Your task to perform on an android device: delete browsing data in the chrome app Image 0: 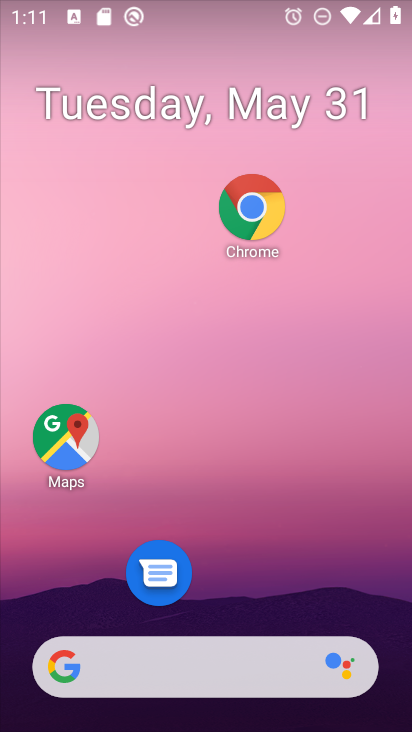
Step 0: drag from (225, 592) to (270, 199)
Your task to perform on an android device: delete browsing data in the chrome app Image 1: 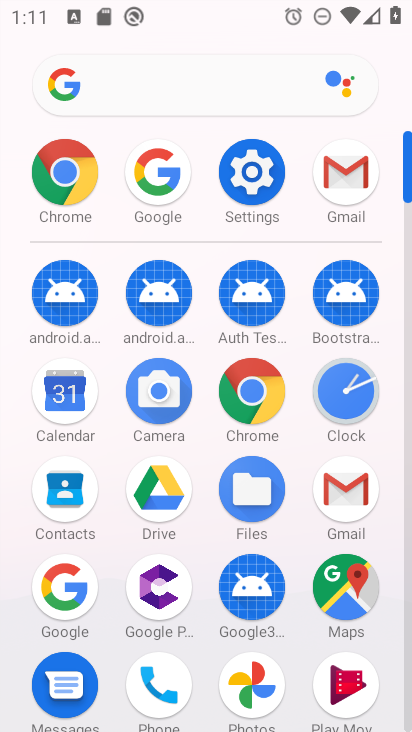
Step 1: click (74, 187)
Your task to perform on an android device: delete browsing data in the chrome app Image 2: 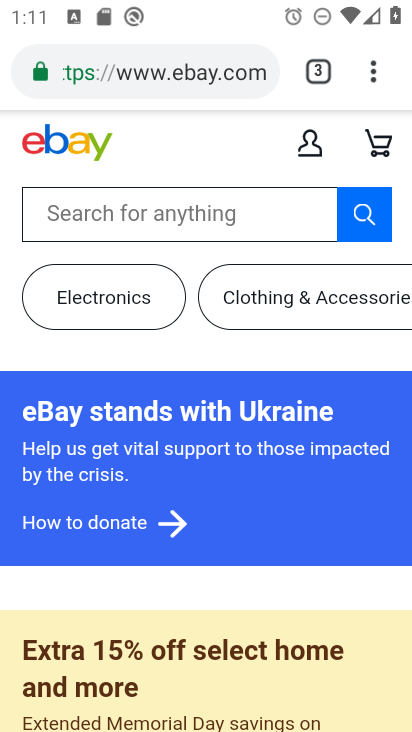
Step 2: click (379, 78)
Your task to perform on an android device: delete browsing data in the chrome app Image 3: 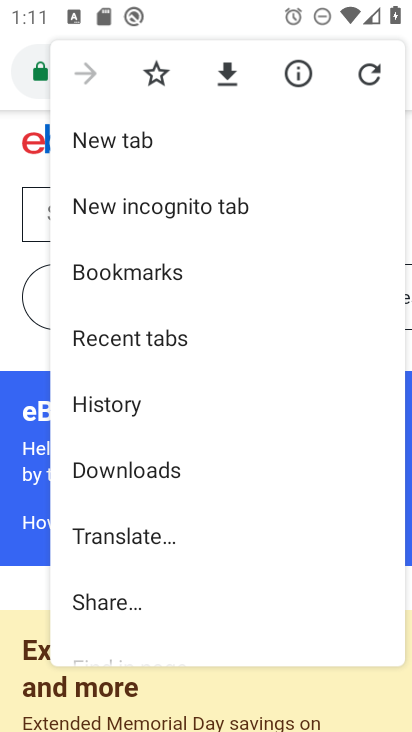
Step 3: click (138, 400)
Your task to perform on an android device: delete browsing data in the chrome app Image 4: 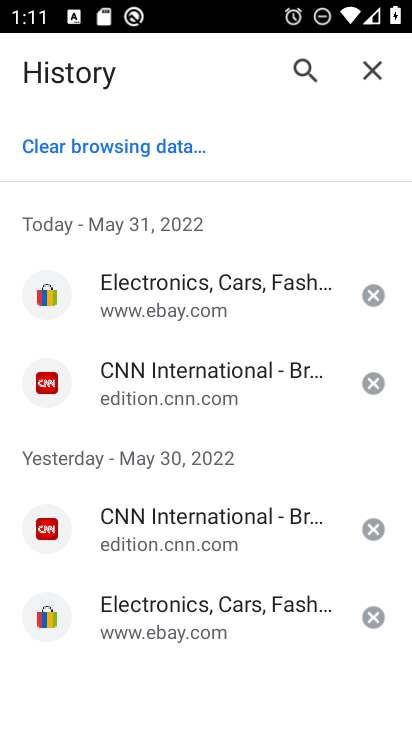
Step 4: click (124, 149)
Your task to perform on an android device: delete browsing data in the chrome app Image 5: 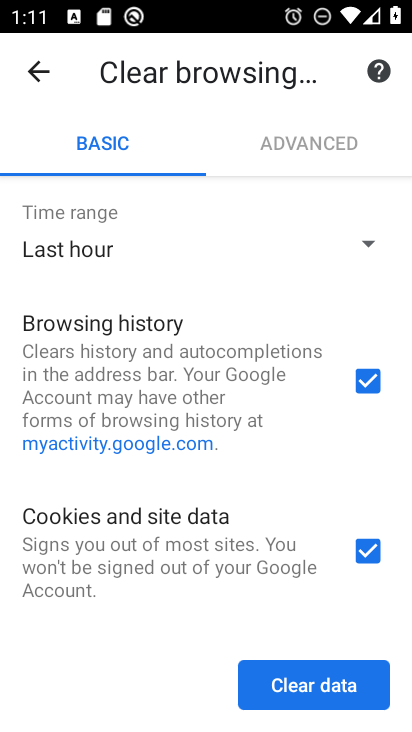
Step 5: click (366, 553)
Your task to perform on an android device: delete browsing data in the chrome app Image 6: 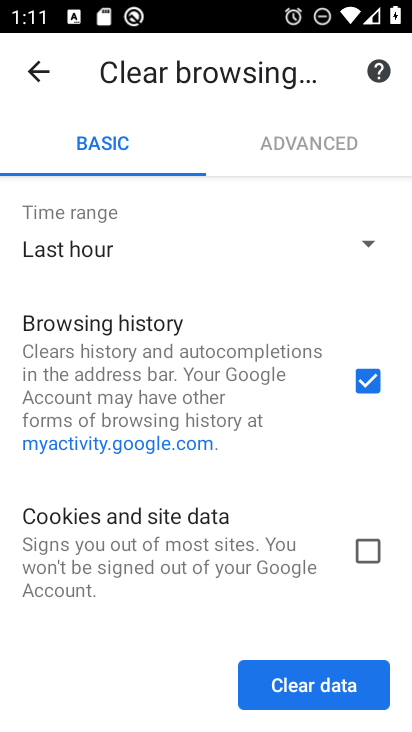
Step 6: click (332, 693)
Your task to perform on an android device: delete browsing data in the chrome app Image 7: 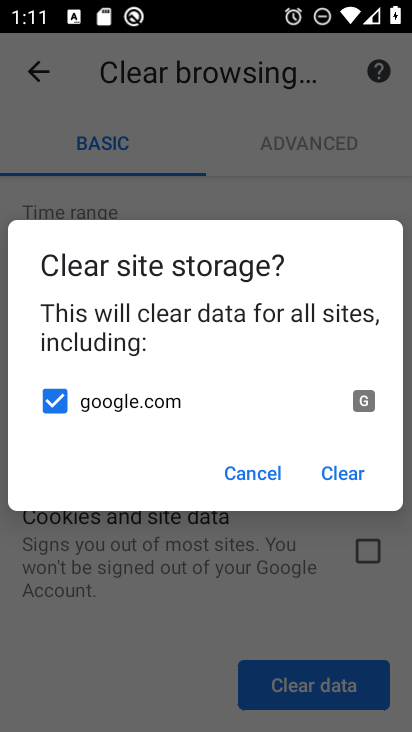
Step 7: click (345, 475)
Your task to perform on an android device: delete browsing data in the chrome app Image 8: 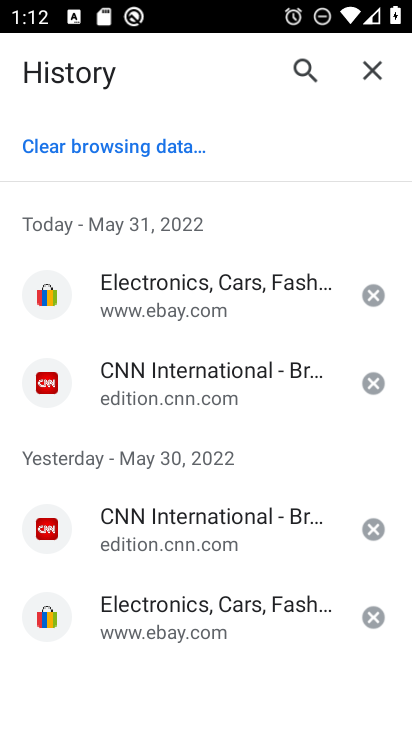
Step 8: task complete